Your task to perform on an android device: What's on my calendar tomorrow? Image 0: 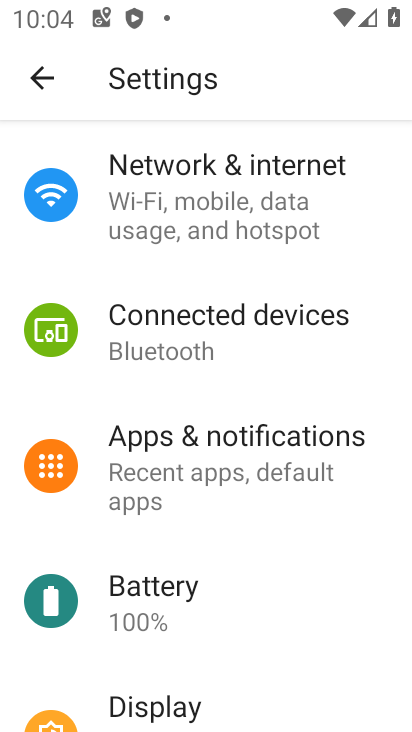
Step 0: press home button
Your task to perform on an android device: What's on my calendar tomorrow? Image 1: 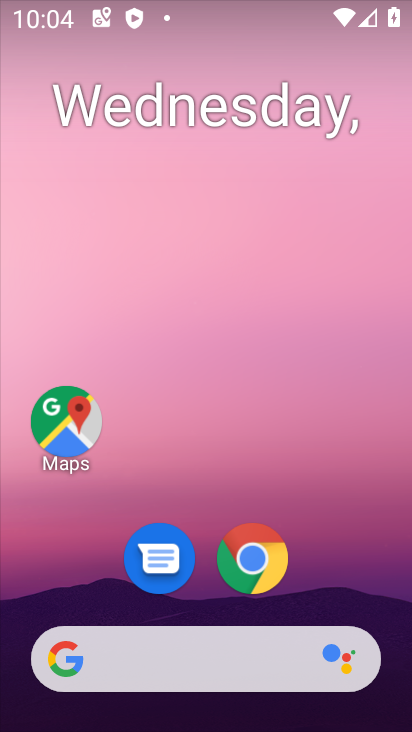
Step 1: drag from (60, 558) to (231, 153)
Your task to perform on an android device: What's on my calendar tomorrow? Image 2: 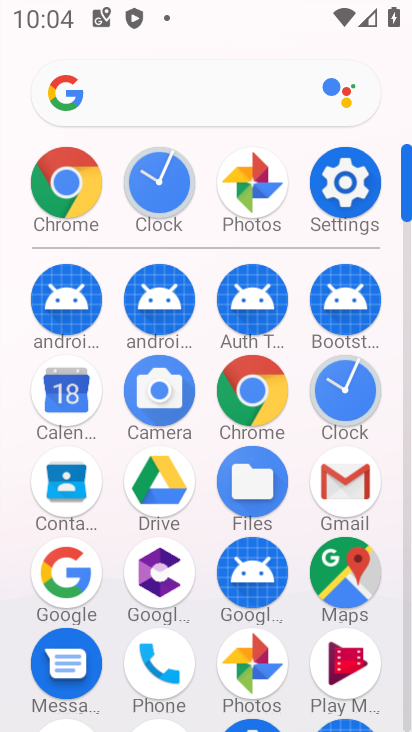
Step 2: click (75, 388)
Your task to perform on an android device: What's on my calendar tomorrow? Image 3: 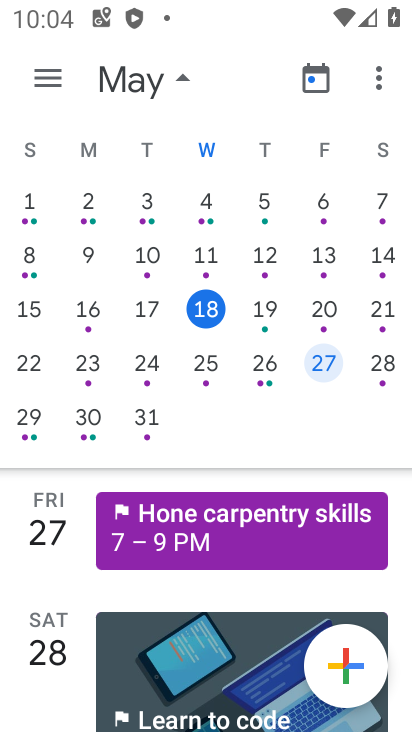
Step 3: click (248, 307)
Your task to perform on an android device: What's on my calendar tomorrow? Image 4: 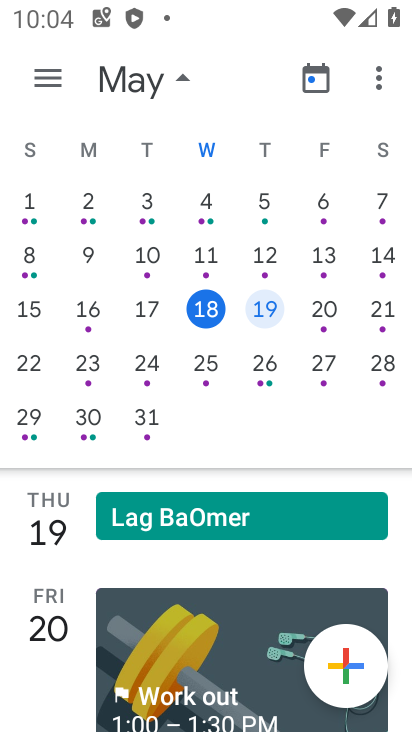
Step 4: task complete